Your task to perform on an android device: check android version Image 0: 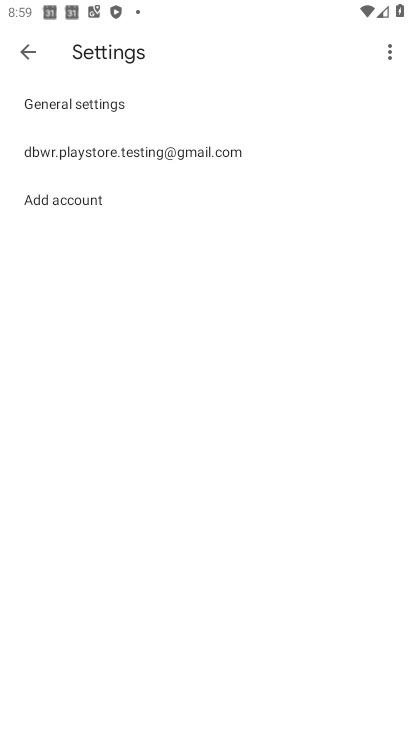
Step 0: press home button
Your task to perform on an android device: check android version Image 1: 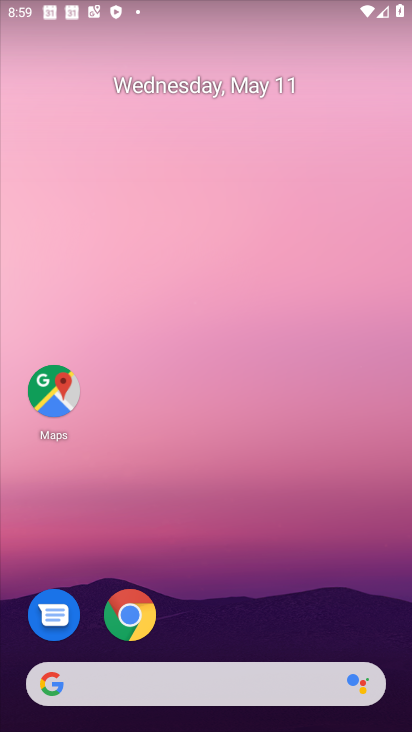
Step 1: drag from (59, 542) to (232, 174)
Your task to perform on an android device: check android version Image 2: 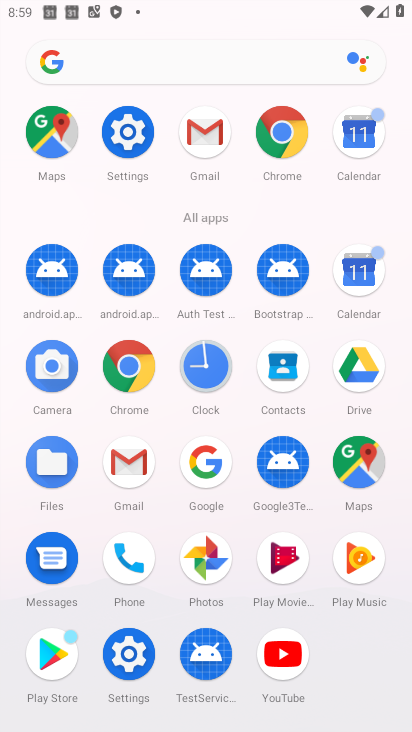
Step 2: click (143, 647)
Your task to perform on an android device: check android version Image 3: 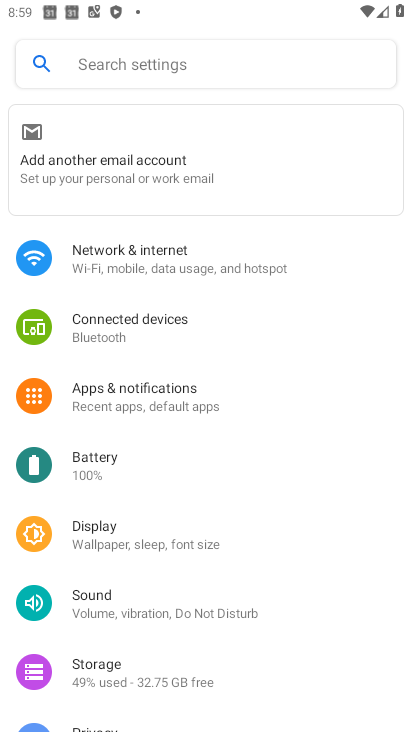
Step 3: drag from (126, 712) to (265, 293)
Your task to perform on an android device: check android version Image 4: 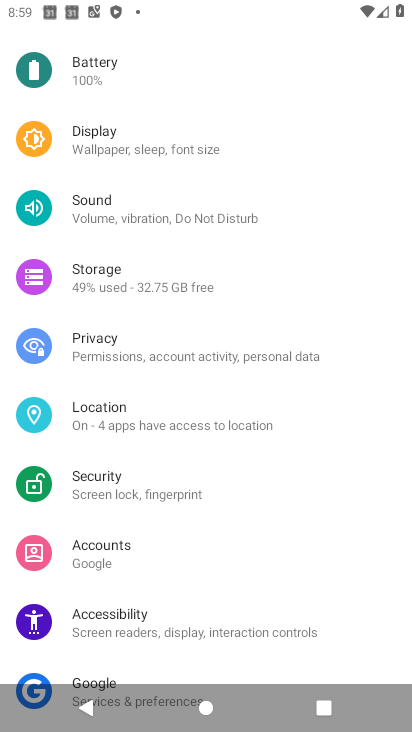
Step 4: drag from (165, 623) to (298, 269)
Your task to perform on an android device: check android version Image 5: 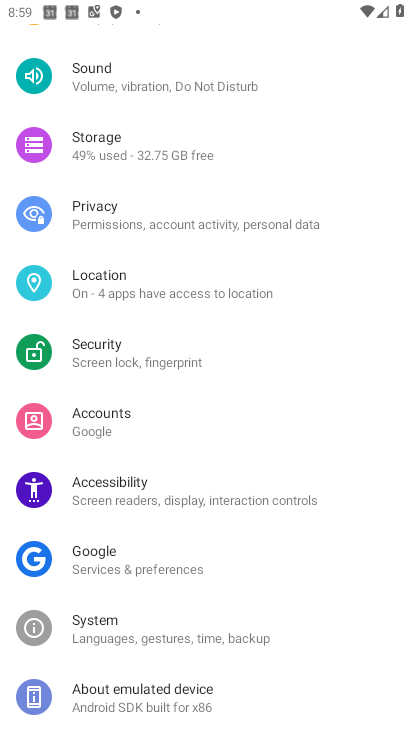
Step 5: drag from (150, 665) to (266, 290)
Your task to perform on an android device: check android version Image 6: 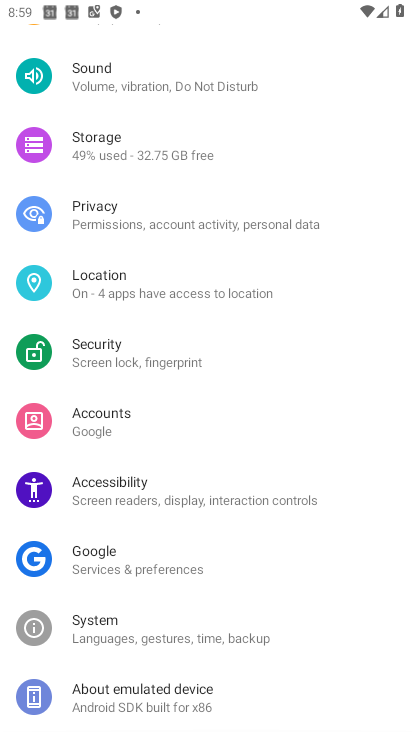
Step 6: click (121, 699)
Your task to perform on an android device: check android version Image 7: 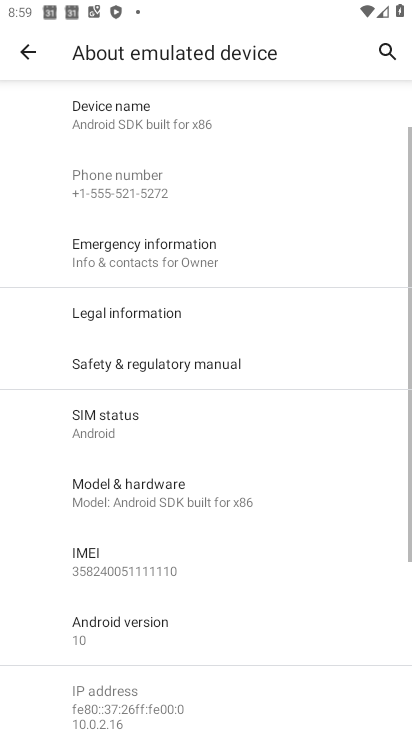
Step 7: drag from (114, 719) to (246, 259)
Your task to perform on an android device: check android version Image 8: 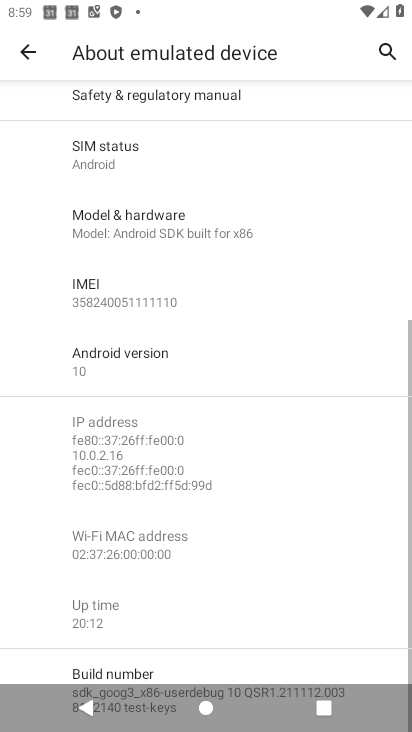
Step 8: drag from (163, 664) to (259, 176)
Your task to perform on an android device: check android version Image 9: 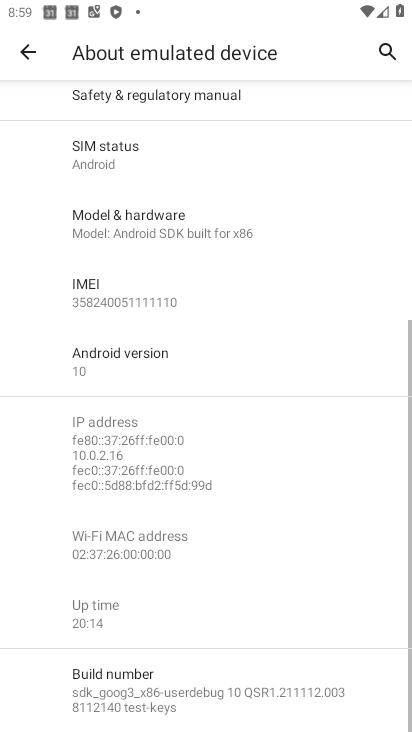
Step 9: drag from (116, 612) to (205, 256)
Your task to perform on an android device: check android version Image 10: 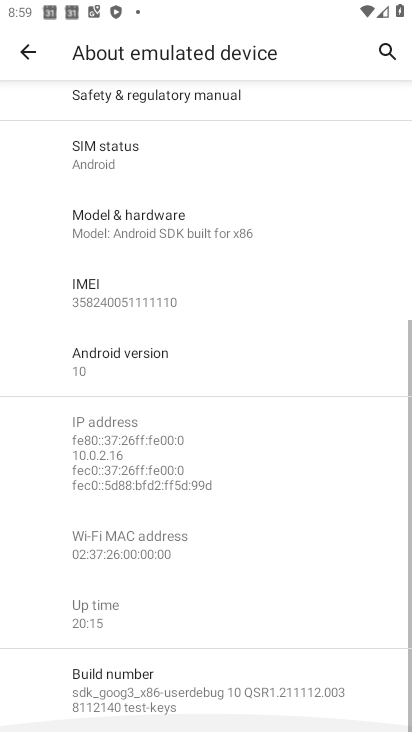
Step 10: drag from (296, 223) to (242, 500)
Your task to perform on an android device: check android version Image 11: 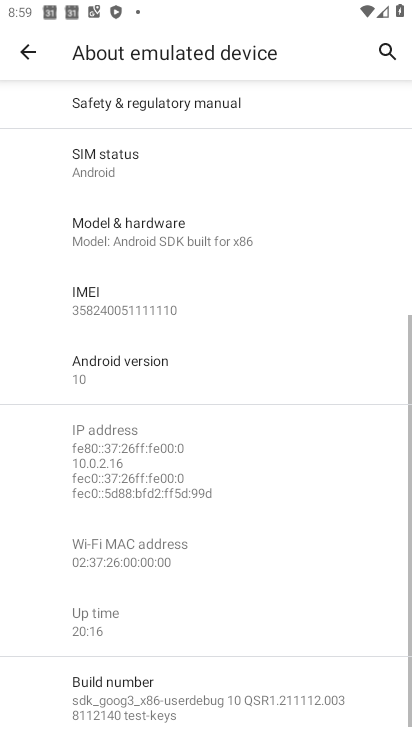
Step 11: drag from (188, 158) to (116, 575)
Your task to perform on an android device: check android version Image 12: 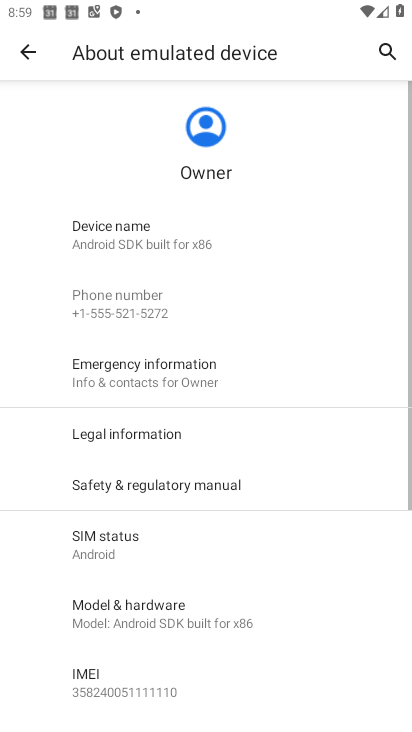
Step 12: drag from (133, 620) to (261, 255)
Your task to perform on an android device: check android version Image 13: 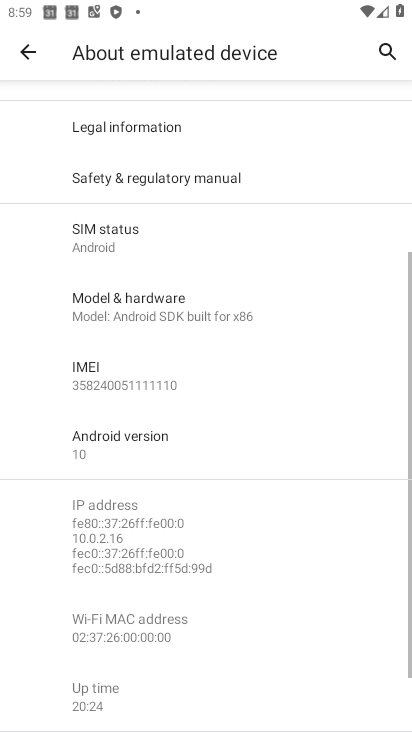
Step 13: click (144, 430)
Your task to perform on an android device: check android version Image 14: 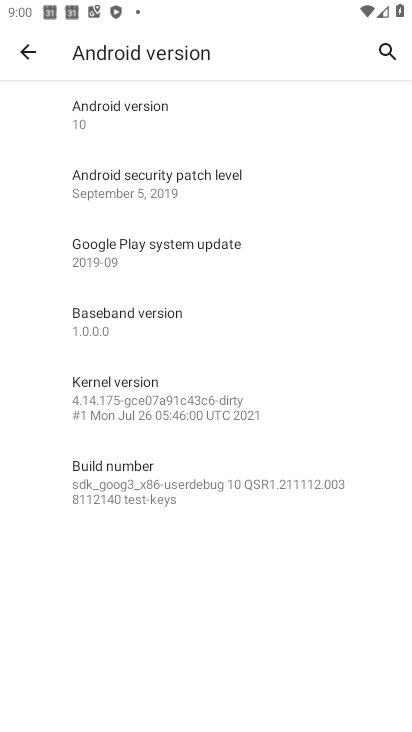
Step 14: task complete